Your task to perform on an android device: open app "Chime – Mobile Banking" (install if not already installed), go to login, and select forgot password Image 0: 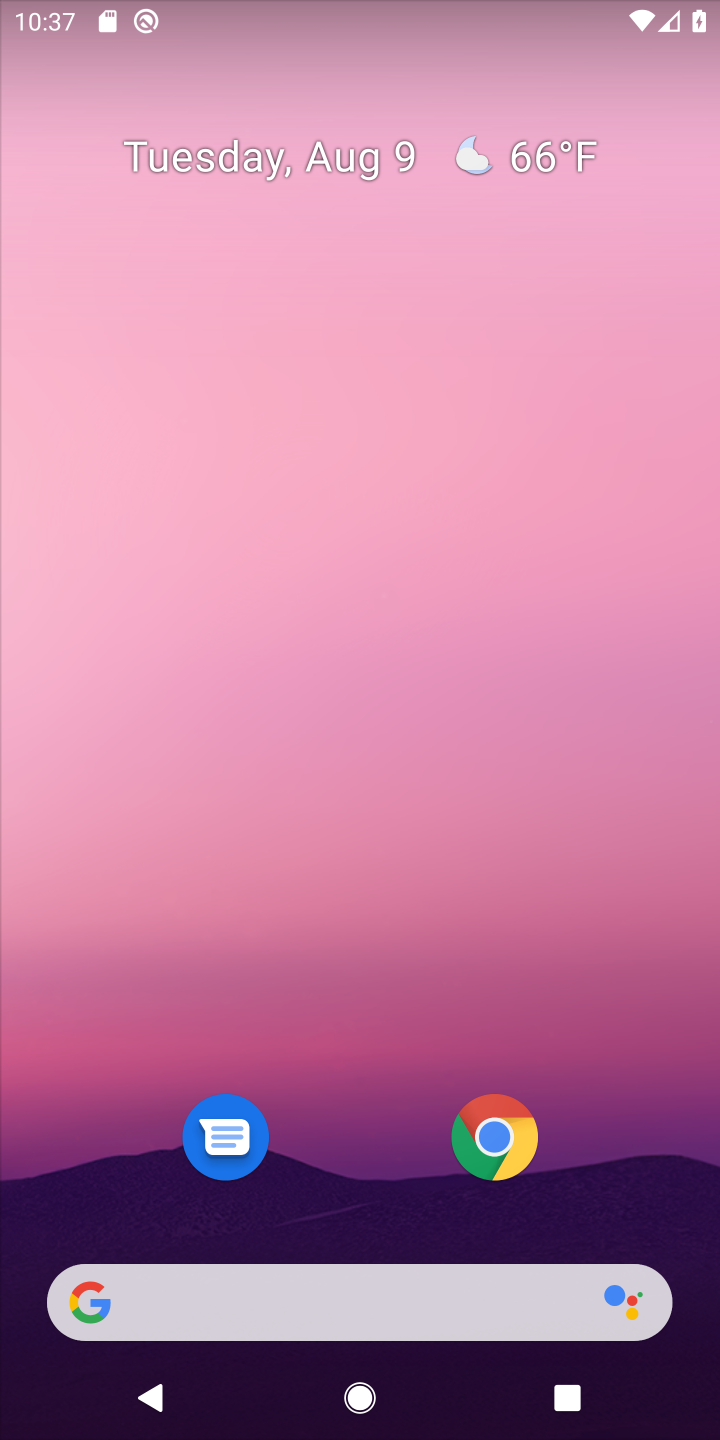
Step 0: drag from (340, 1125) to (354, 226)
Your task to perform on an android device: open app "Chime – Mobile Banking" (install if not already installed), go to login, and select forgot password Image 1: 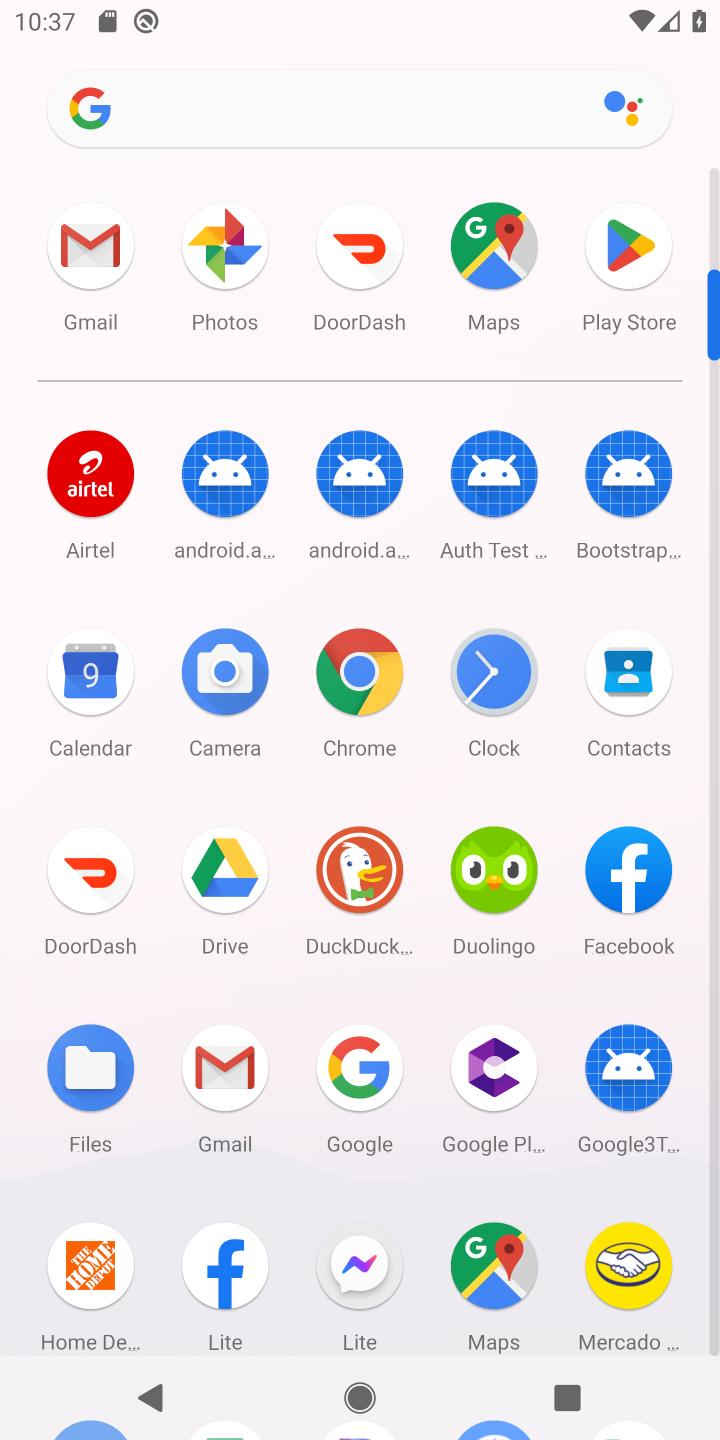
Step 1: click (602, 229)
Your task to perform on an android device: open app "Chime – Mobile Banking" (install if not already installed), go to login, and select forgot password Image 2: 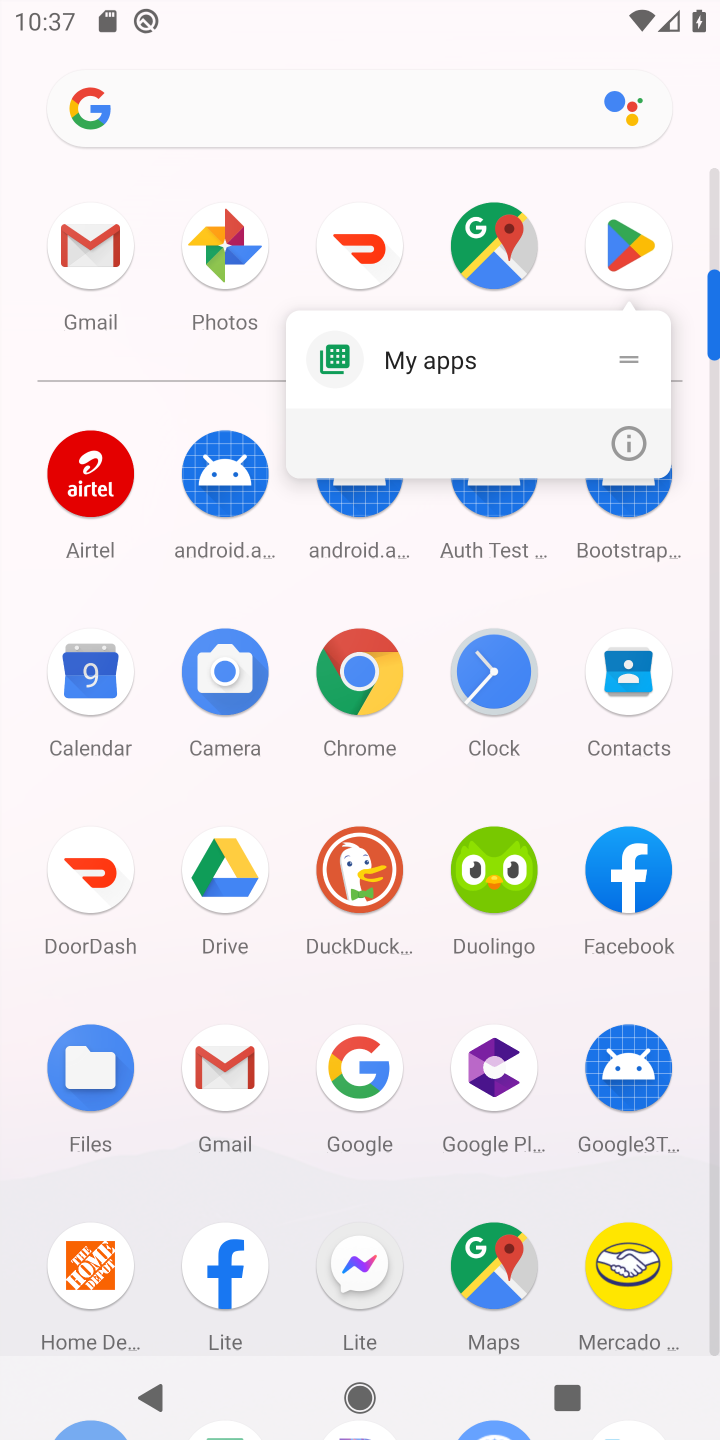
Step 2: click (609, 231)
Your task to perform on an android device: open app "Chime – Mobile Banking" (install if not already installed), go to login, and select forgot password Image 3: 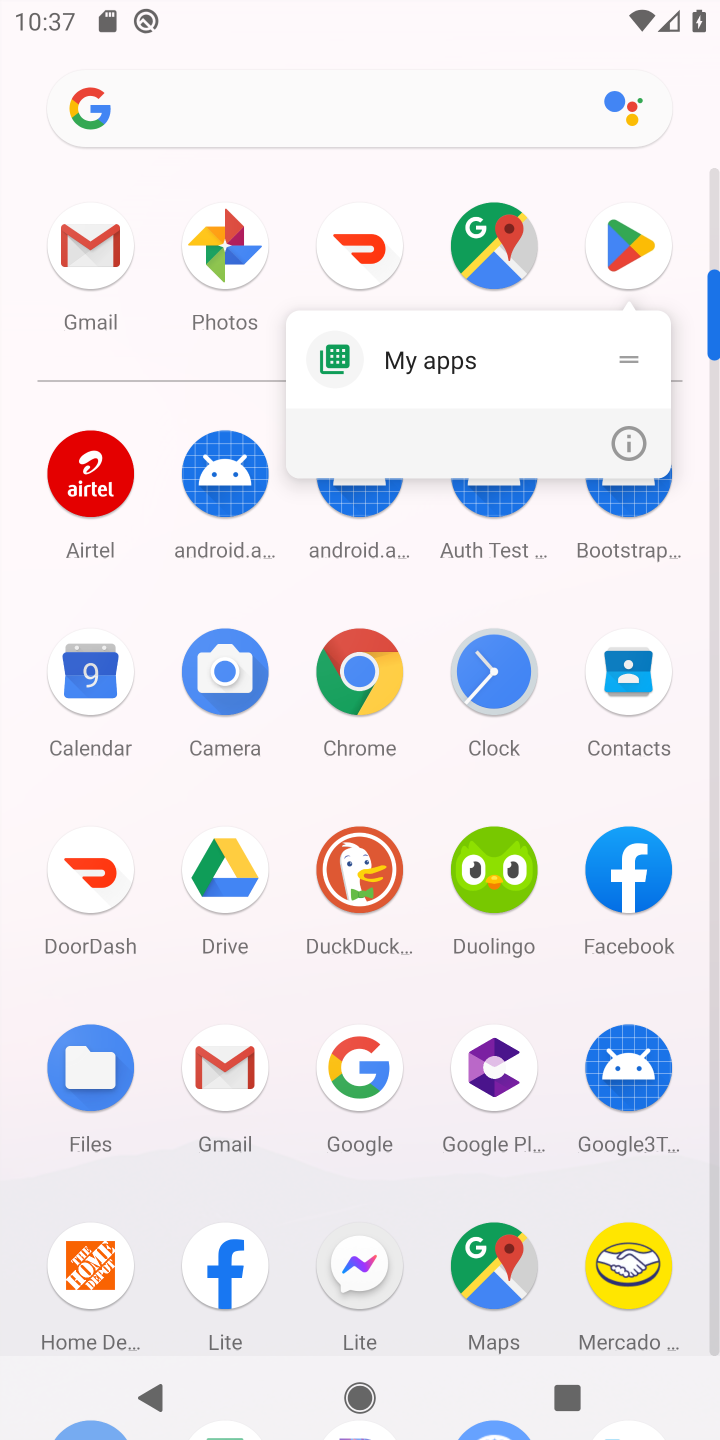
Step 3: click (609, 231)
Your task to perform on an android device: open app "Chime – Mobile Banking" (install if not already installed), go to login, and select forgot password Image 4: 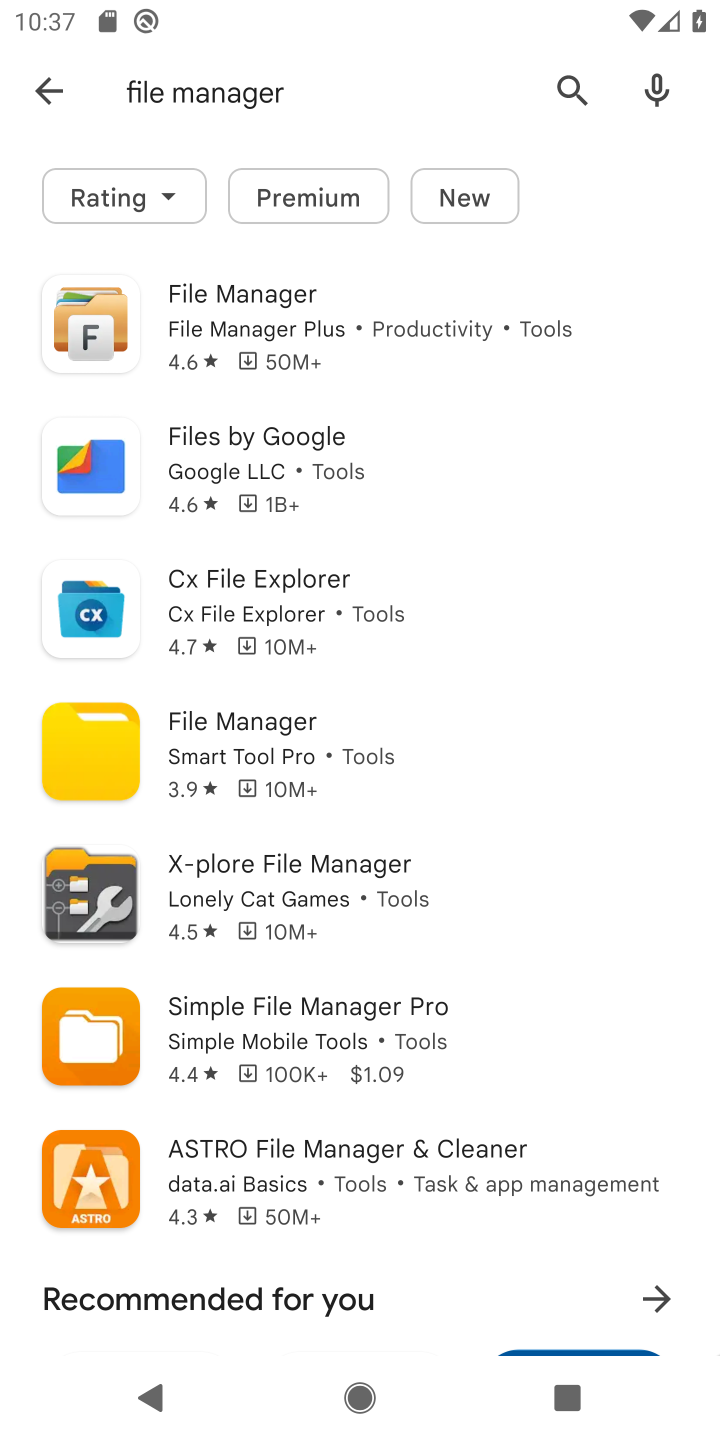
Step 4: click (572, 92)
Your task to perform on an android device: open app "Chime – Mobile Banking" (install if not already installed), go to login, and select forgot password Image 5: 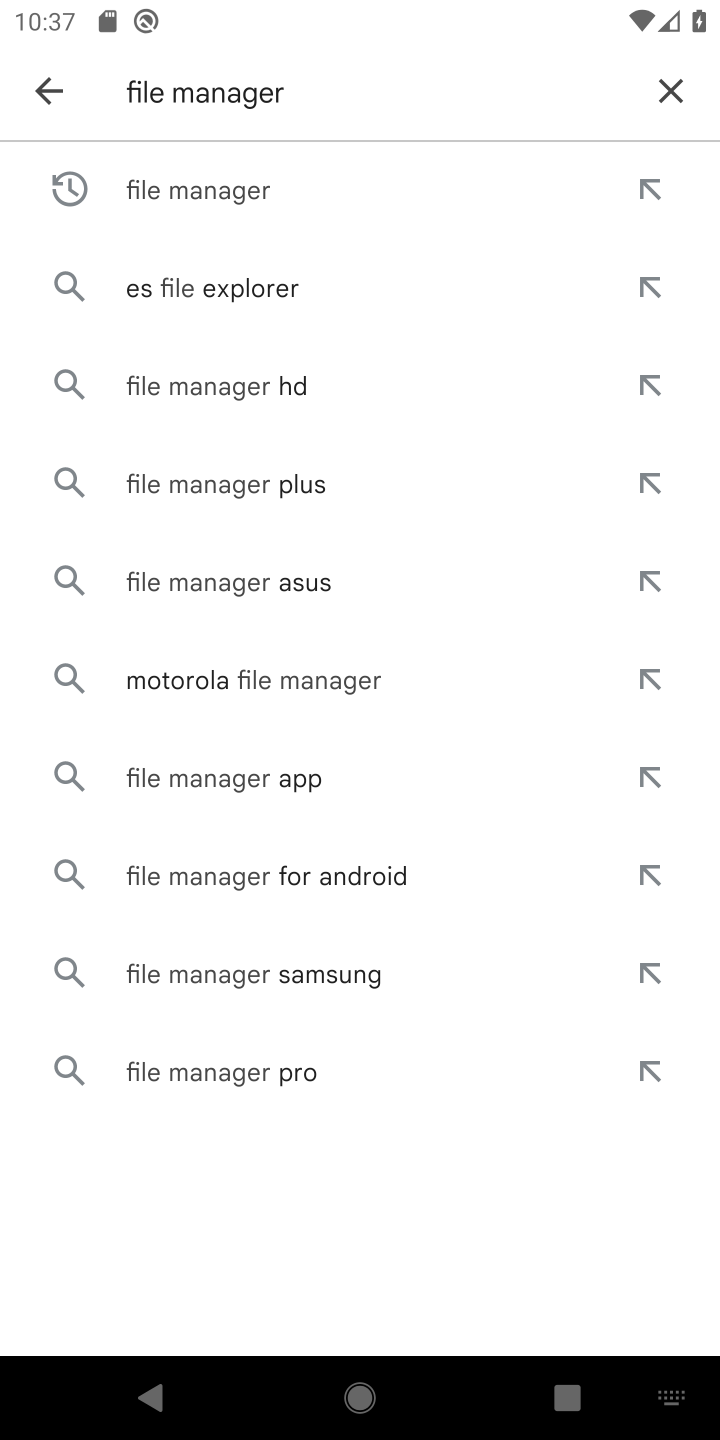
Step 5: click (654, 92)
Your task to perform on an android device: open app "Chime – Mobile Banking" (install if not already installed), go to login, and select forgot password Image 6: 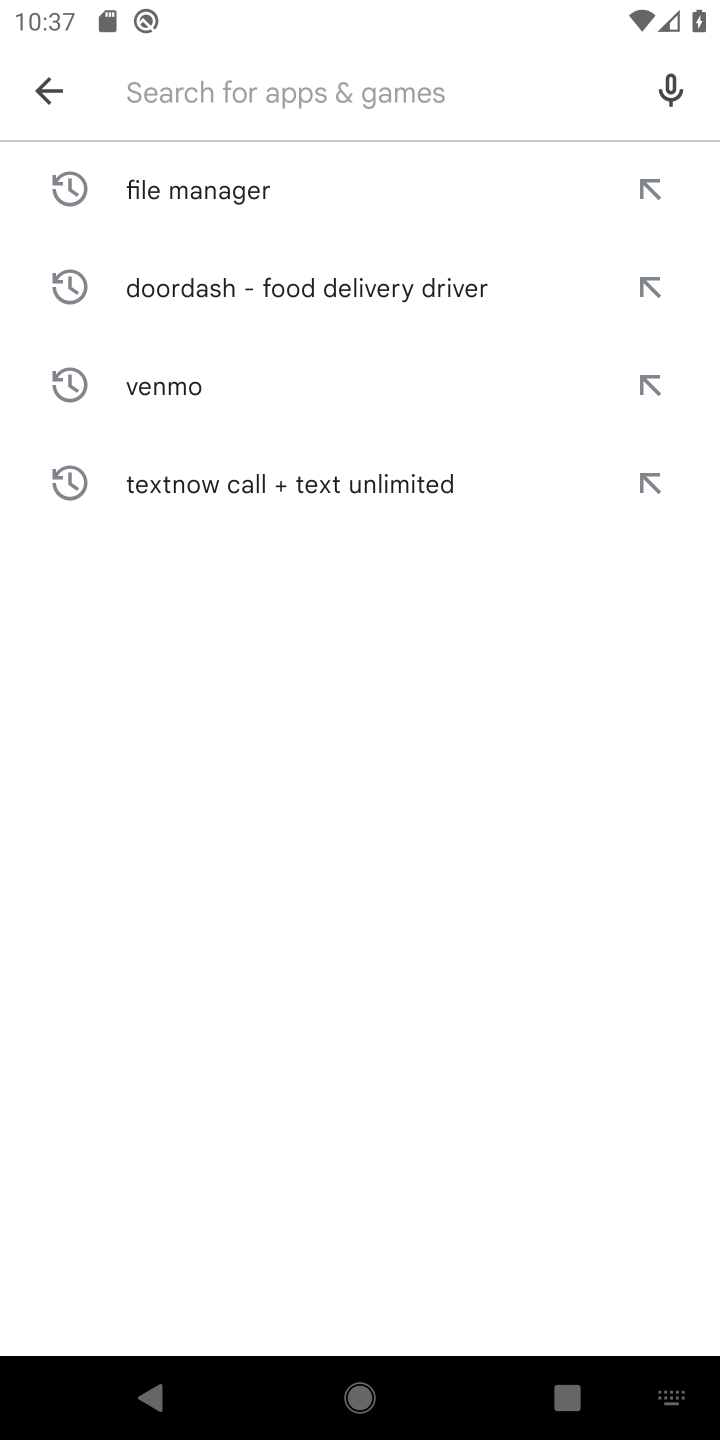
Step 6: type "Chime – Mobile Banking"
Your task to perform on an android device: open app "Chime – Mobile Banking" (install if not already installed), go to login, and select forgot password Image 7: 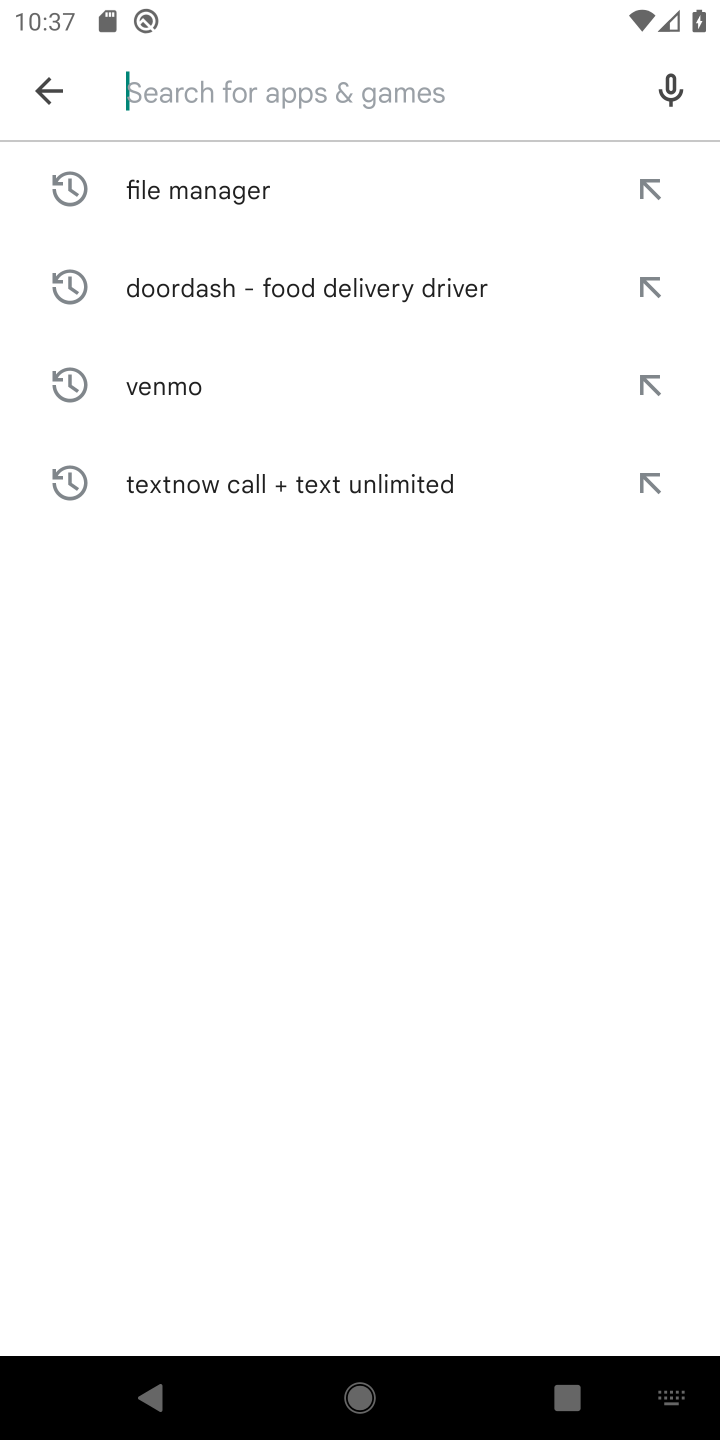
Step 7: type ""
Your task to perform on an android device: open app "Chime – Mobile Banking" (install if not already installed), go to login, and select forgot password Image 8: 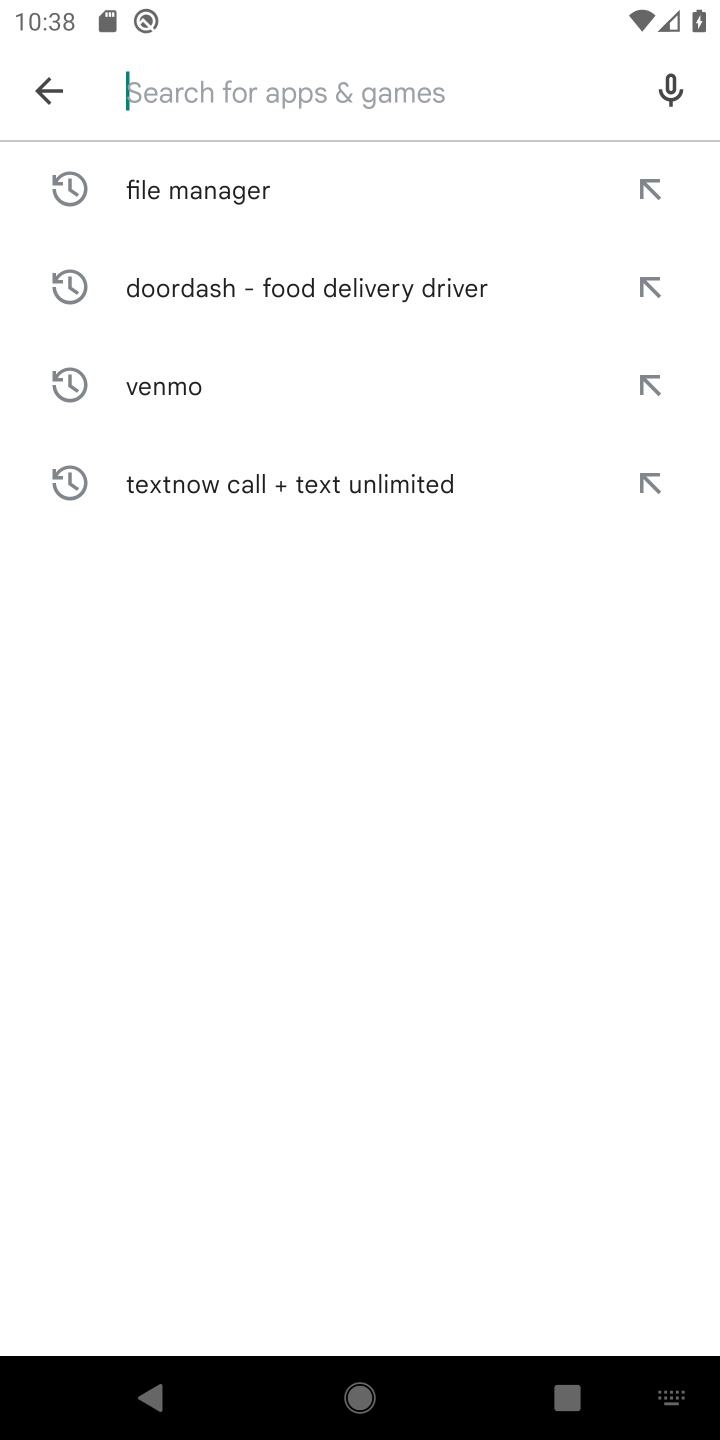
Step 8: type "Chime – Mobile Banking"
Your task to perform on an android device: open app "Chime – Mobile Banking" (install if not already installed), go to login, and select forgot password Image 9: 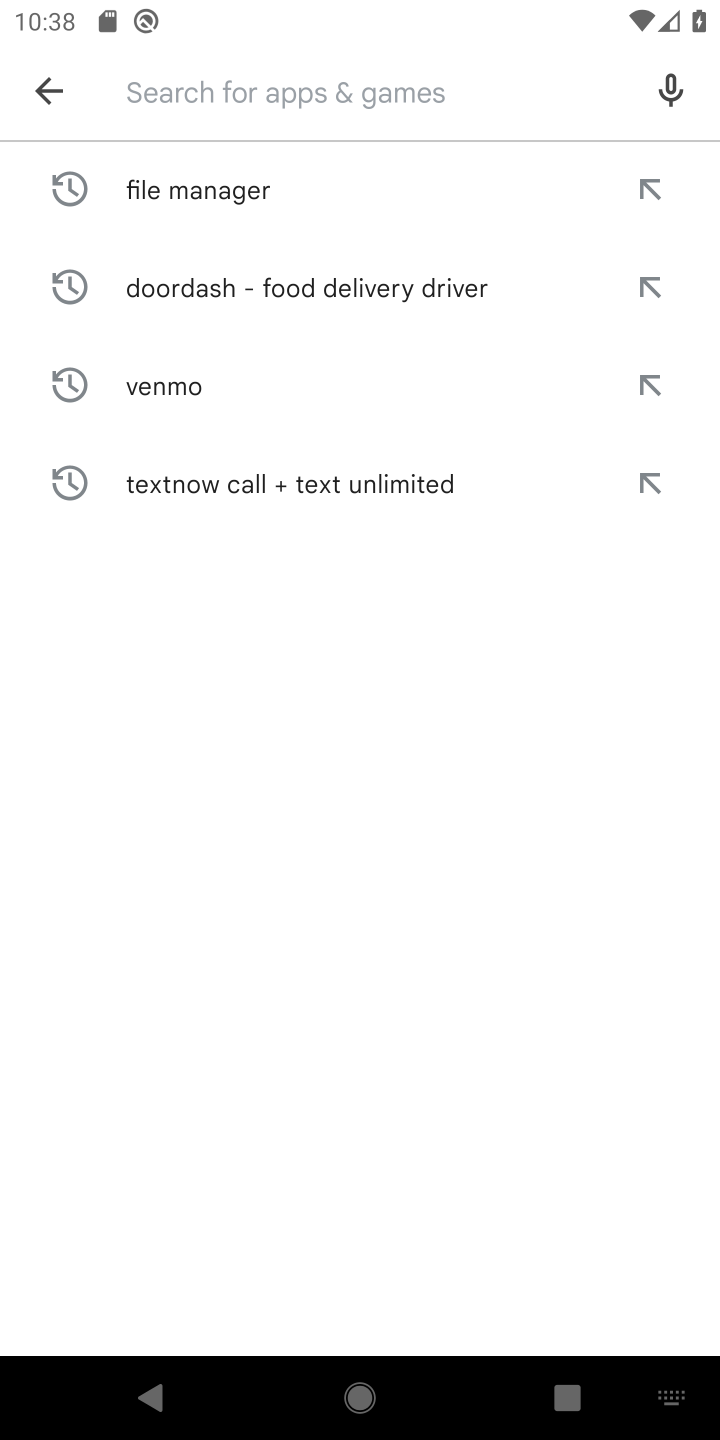
Step 9: type ""
Your task to perform on an android device: open app "Chime – Mobile Banking" (install if not already installed), go to login, and select forgot password Image 10: 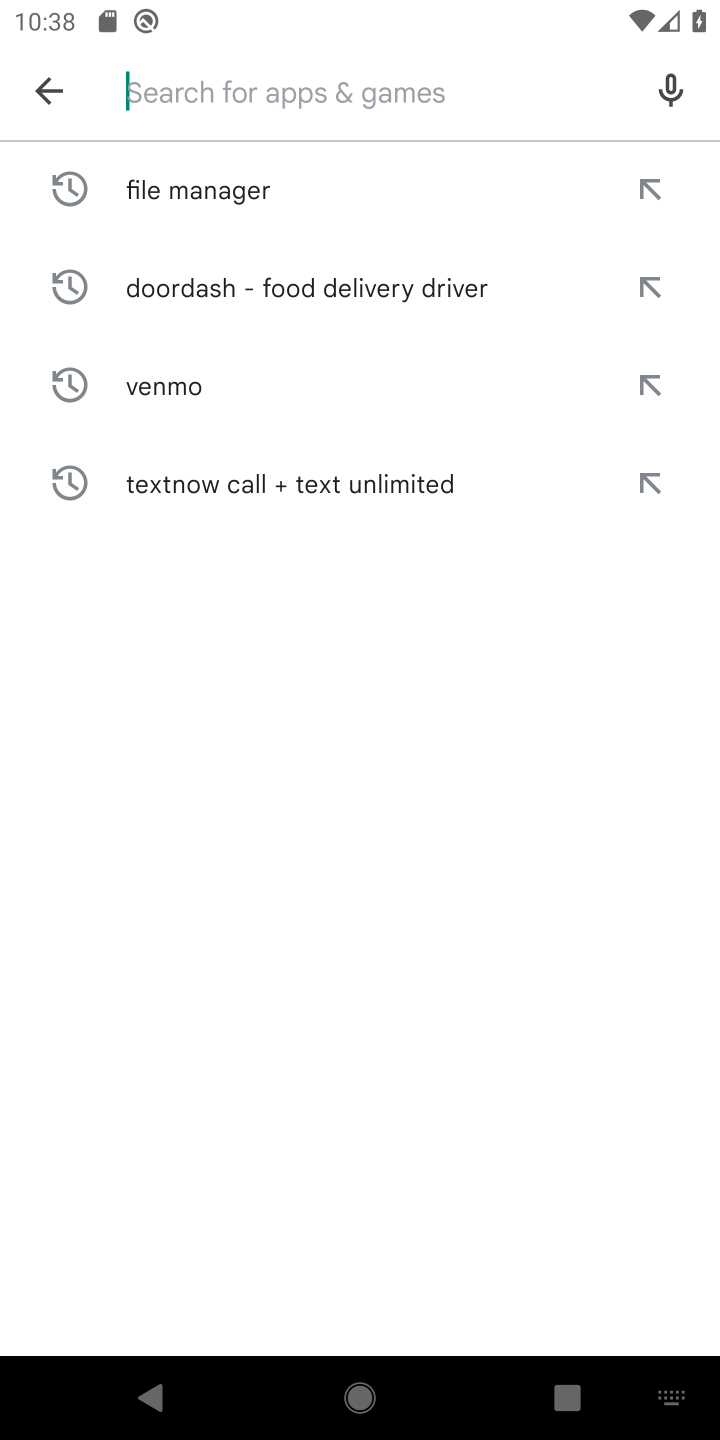
Step 10: click (186, 98)
Your task to perform on an android device: open app "Chime – Mobile Banking" (install if not already installed), go to login, and select forgot password Image 11: 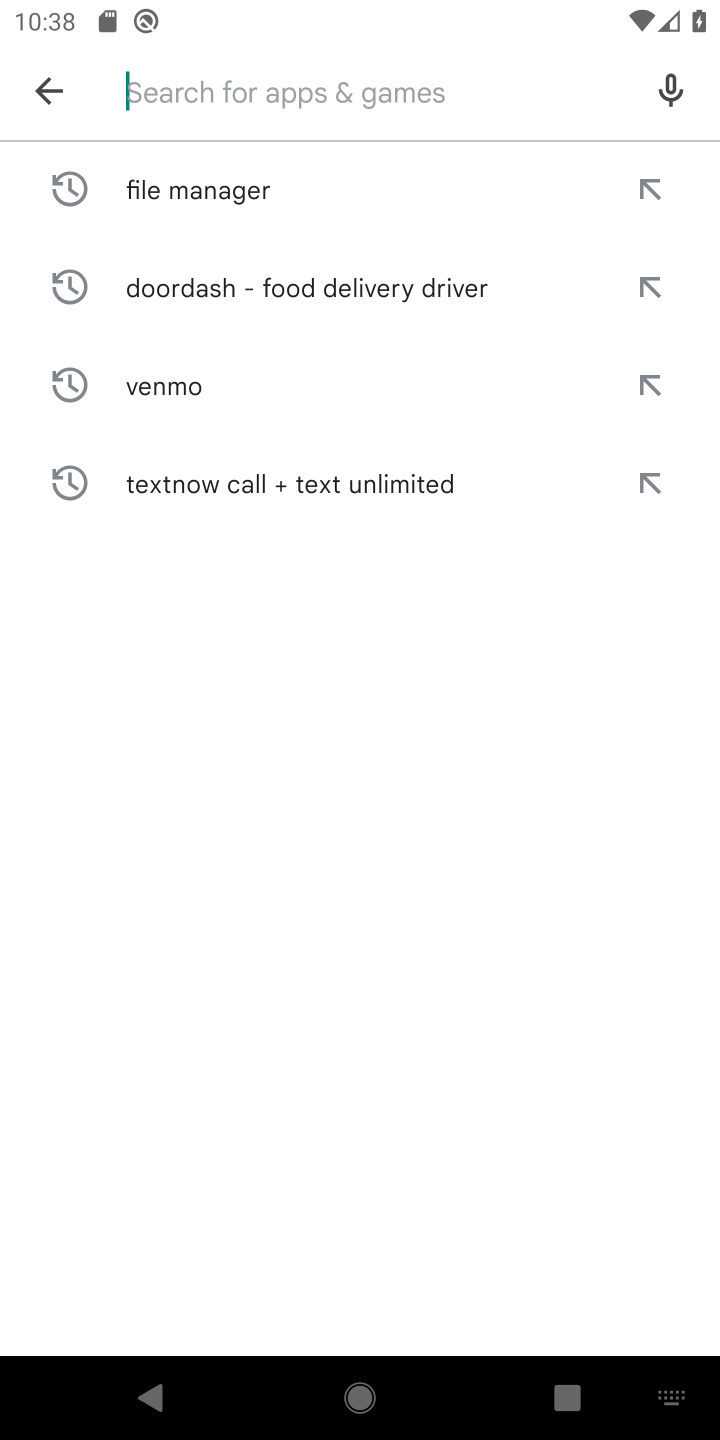
Step 11: type "Chime – Mobile Banking"
Your task to perform on an android device: open app "Chime – Mobile Banking" (install if not already installed), go to login, and select forgot password Image 12: 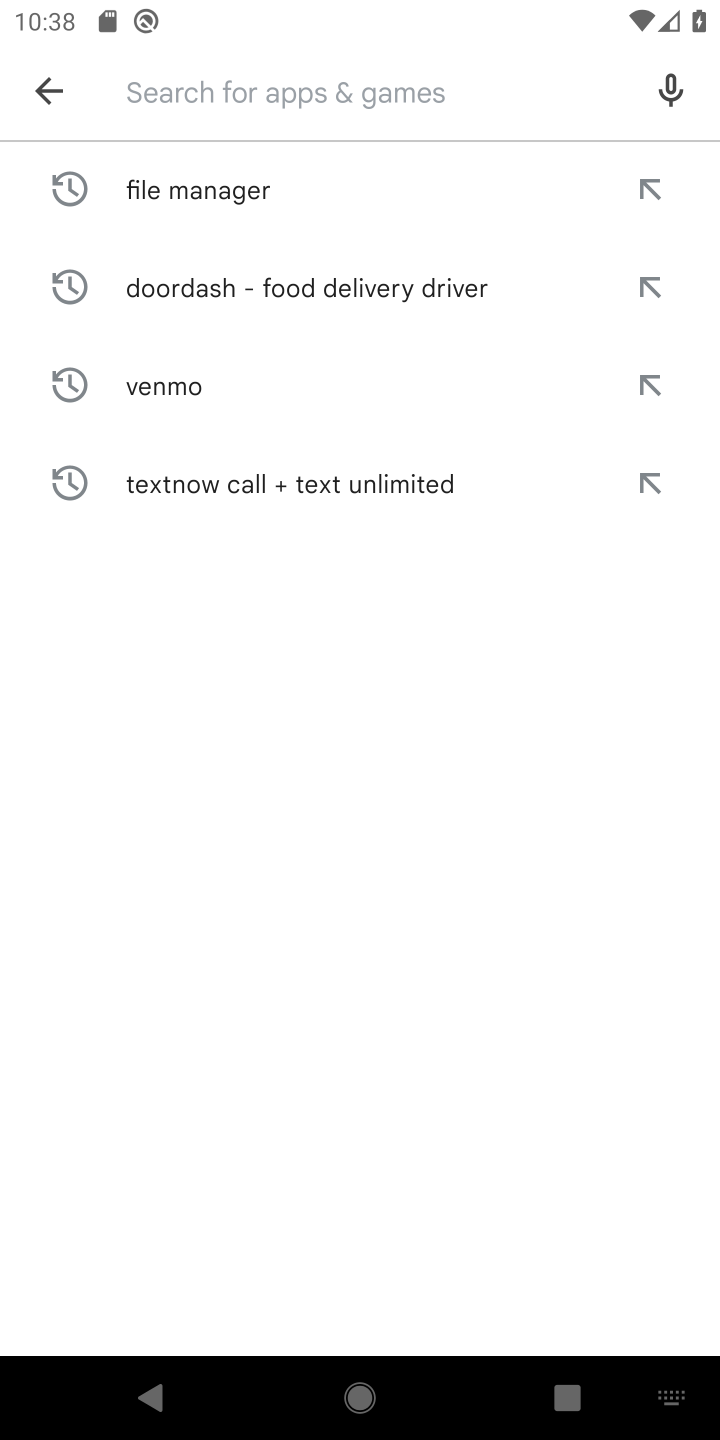
Step 12: type ""
Your task to perform on an android device: open app "Chime – Mobile Banking" (install if not already installed), go to login, and select forgot password Image 13: 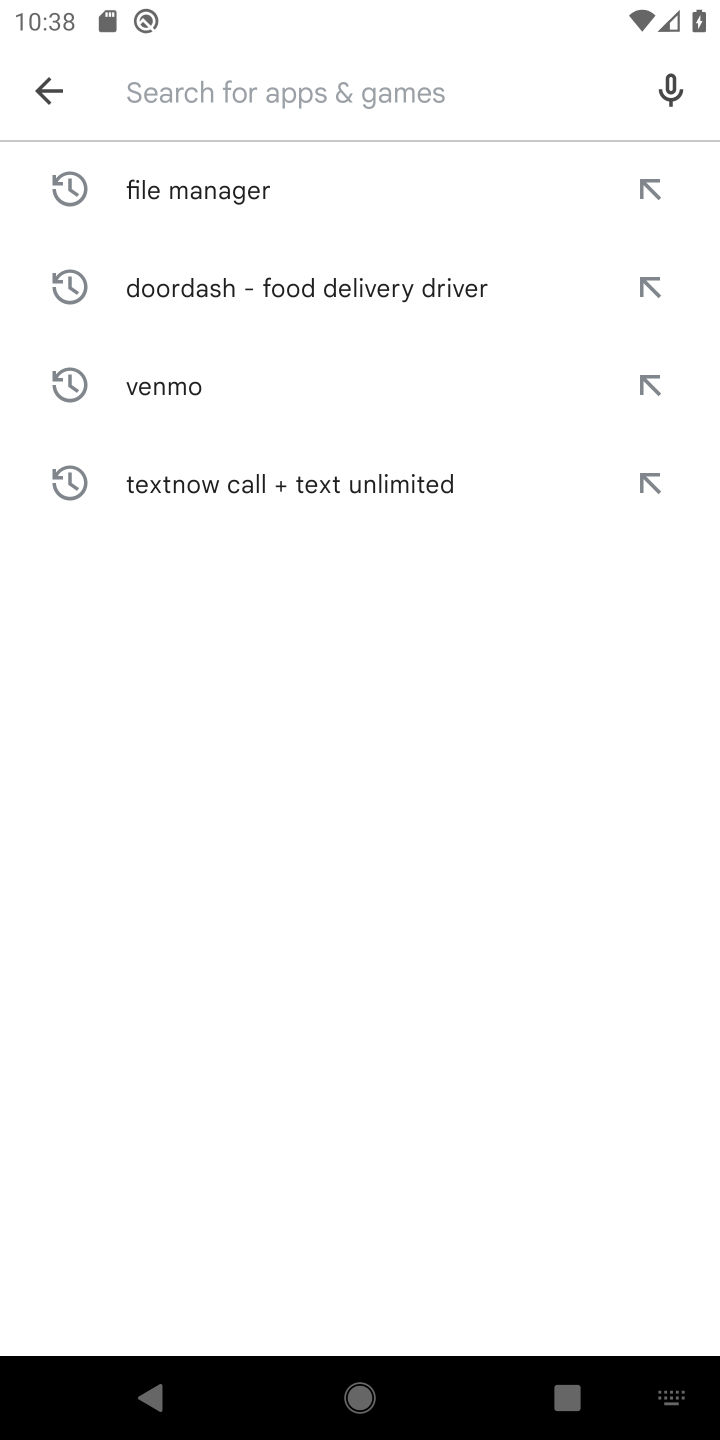
Step 13: task complete